Your task to perform on an android device: What's on the menu at Red Lobster? Image 0: 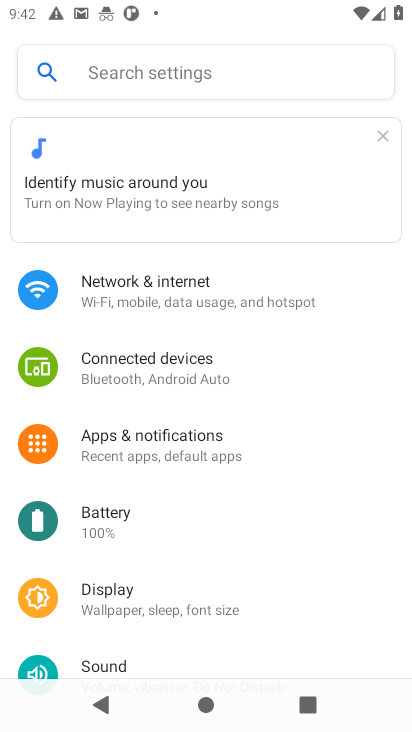
Step 0: press home button
Your task to perform on an android device: What's on the menu at Red Lobster? Image 1: 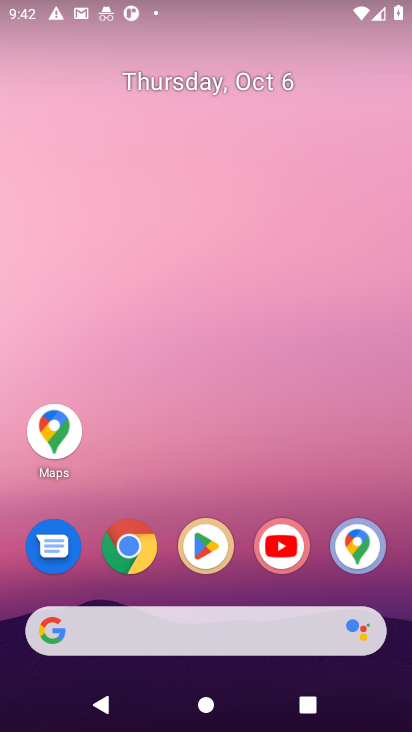
Step 1: click (133, 545)
Your task to perform on an android device: What's on the menu at Red Lobster? Image 2: 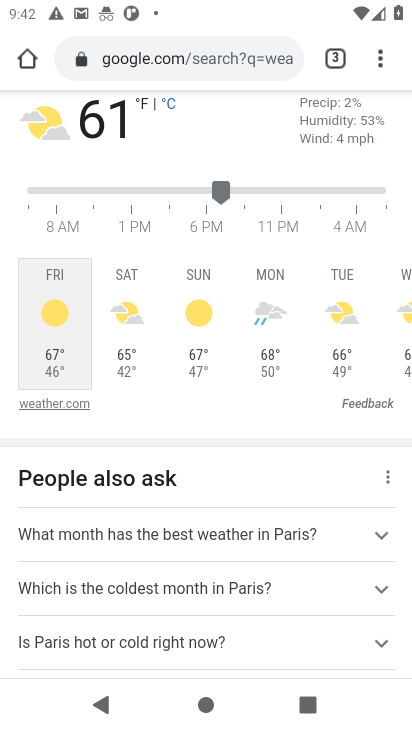
Step 2: click (195, 43)
Your task to perform on an android device: What's on the menu at Red Lobster? Image 3: 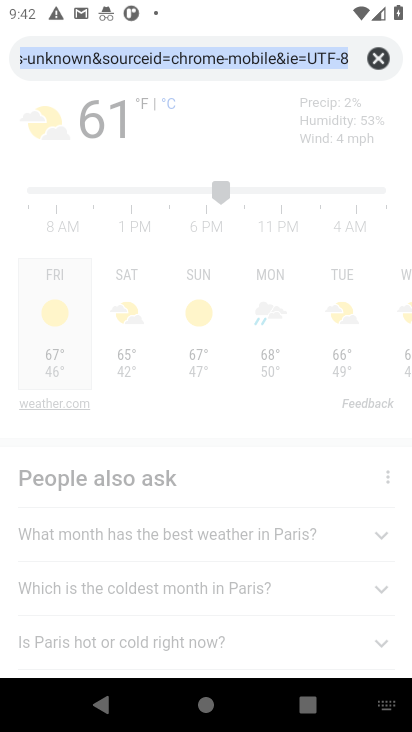
Step 3: click (378, 54)
Your task to perform on an android device: What's on the menu at Red Lobster? Image 4: 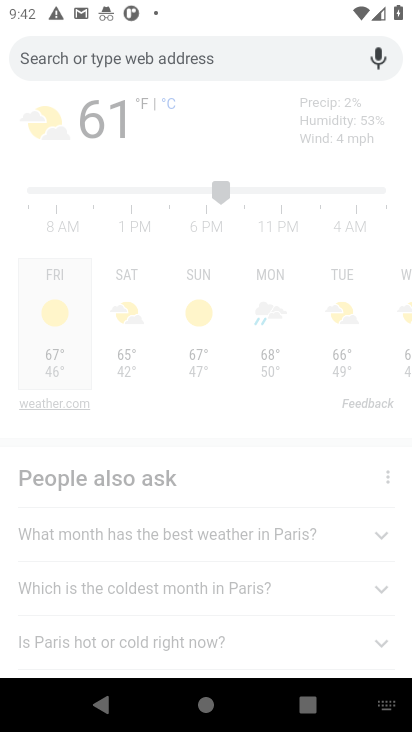
Step 4: type "What's on the menu at Red Lobster?"
Your task to perform on an android device: What's on the menu at Red Lobster? Image 5: 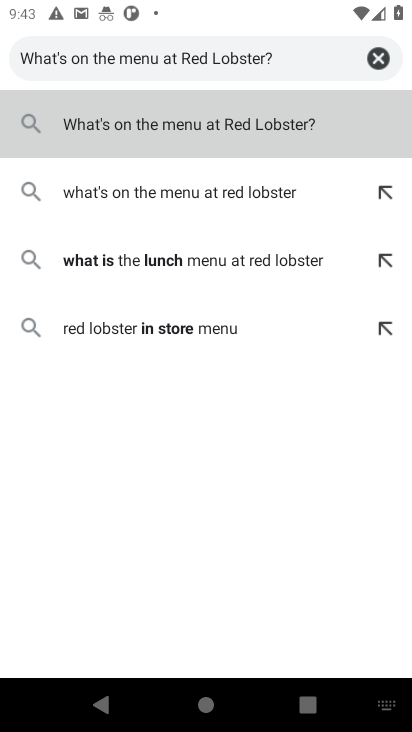
Step 5: click (131, 121)
Your task to perform on an android device: What's on the menu at Red Lobster? Image 6: 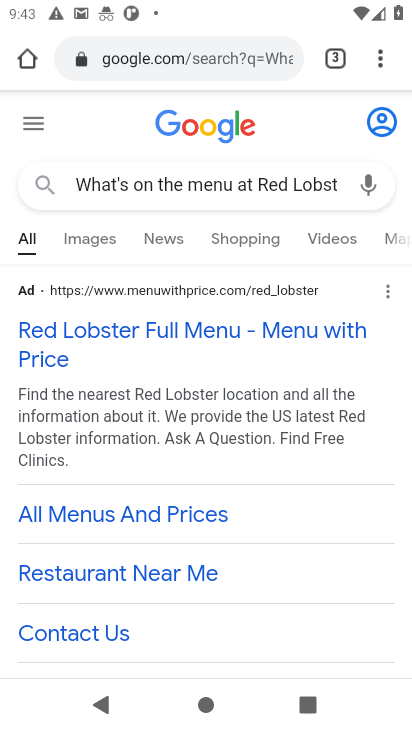
Step 6: click (97, 336)
Your task to perform on an android device: What's on the menu at Red Lobster? Image 7: 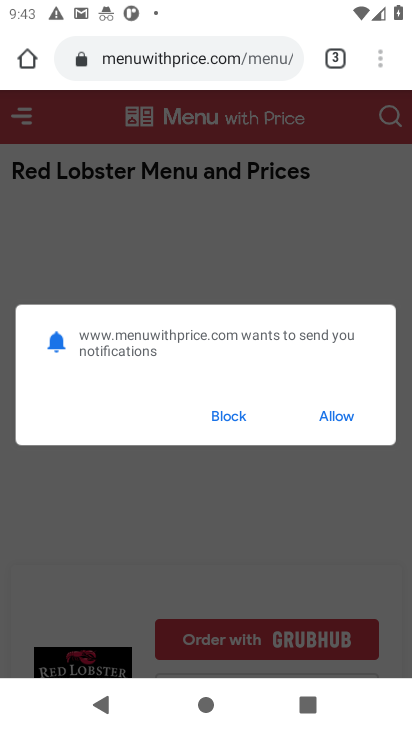
Step 7: click (233, 416)
Your task to perform on an android device: What's on the menu at Red Lobster? Image 8: 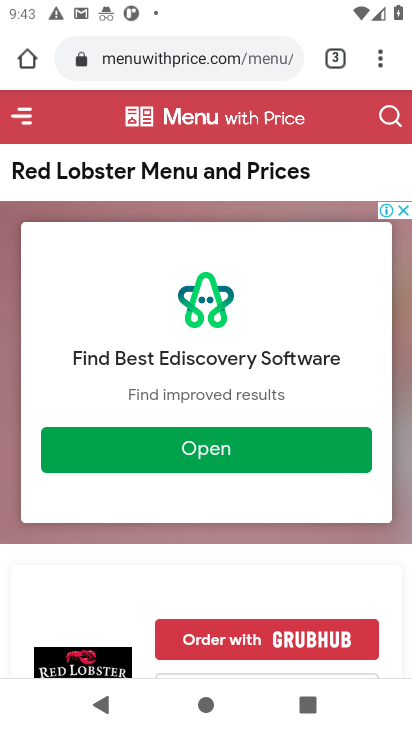
Step 8: drag from (254, 551) to (228, 138)
Your task to perform on an android device: What's on the menu at Red Lobster? Image 9: 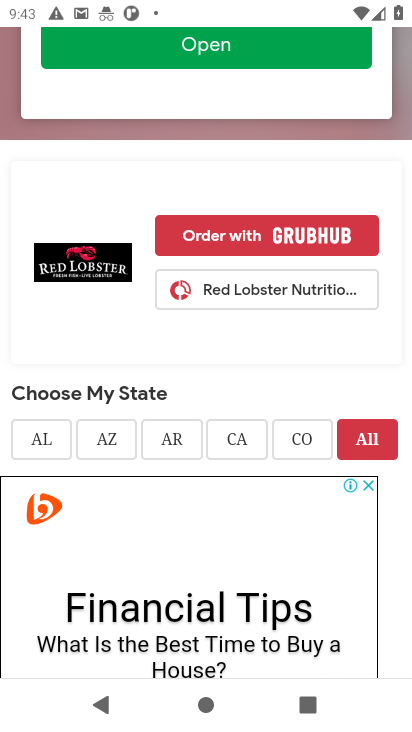
Step 9: drag from (233, 466) to (230, 92)
Your task to perform on an android device: What's on the menu at Red Lobster? Image 10: 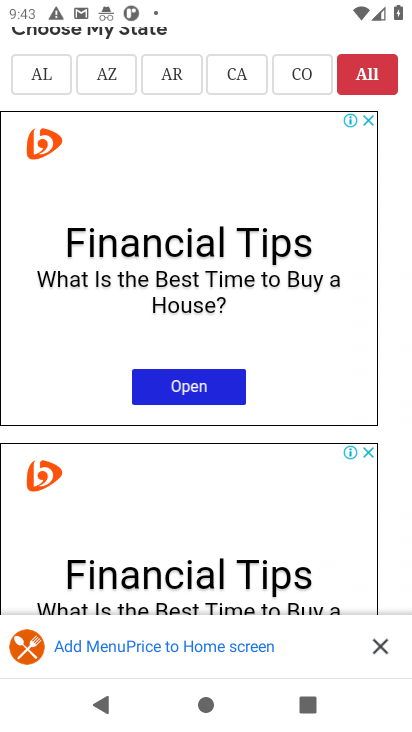
Step 10: drag from (224, 436) to (271, 60)
Your task to perform on an android device: What's on the menu at Red Lobster? Image 11: 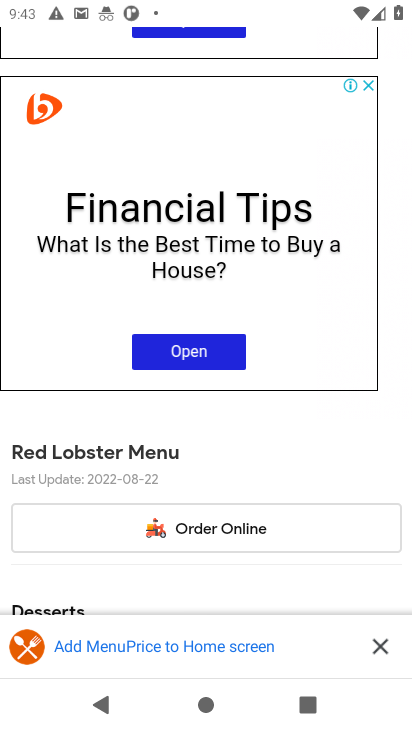
Step 11: drag from (191, 473) to (286, 59)
Your task to perform on an android device: What's on the menu at Red Lobster? Image 12: 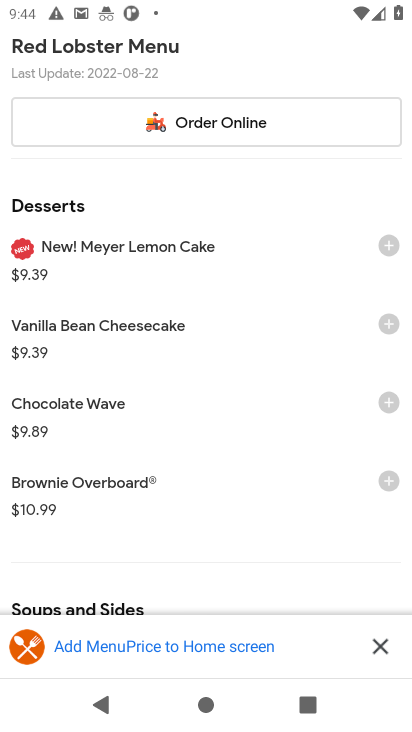
Step 12: press back button
Your task to perform on an android device: What's on the menu at Red Lobster? Image 13: 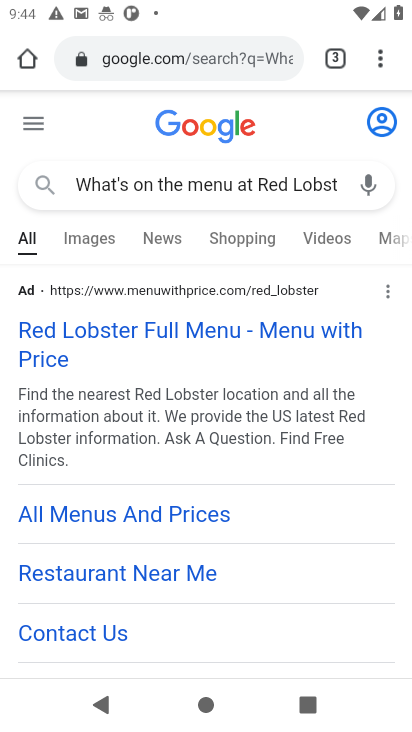
Step 13: drag from (195, 500) to (214, 202)
Your task to perform on an android device: What's on the menu at Red Lobster? Image 14: 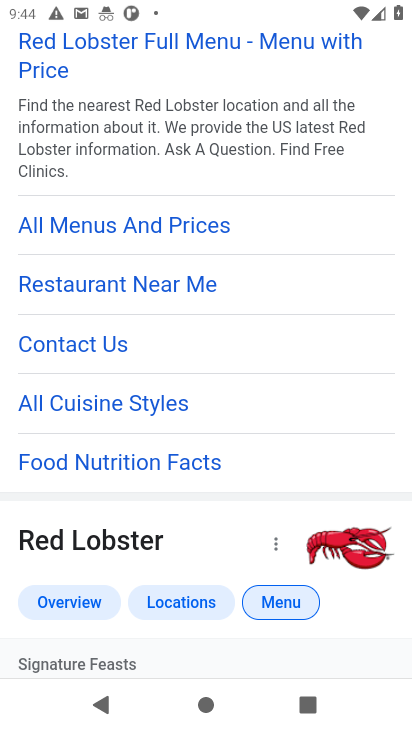
Step 14: drag from (202, 507) to (223, 174)
Your task to perform on an android device: What's on the menu at Red Lobster? Image 15: 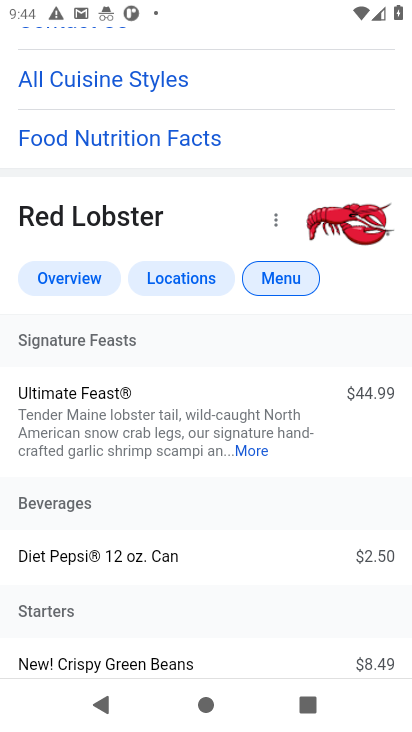
Step 15: drag from (214, 214) to (187, 467)
Your task to perform on an android device: What's on the menu at Red Lobster? Image 16: 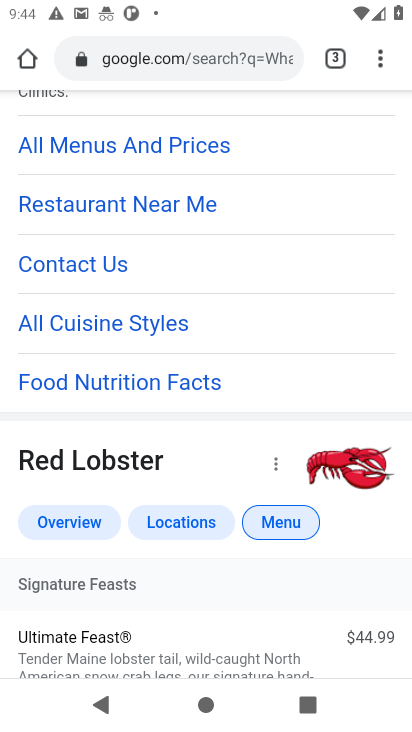
Step 16: drag from (191, 244) to (189, 391)
Your task to perform on an android device: What's on the menu at Red Lobster? Image 17: 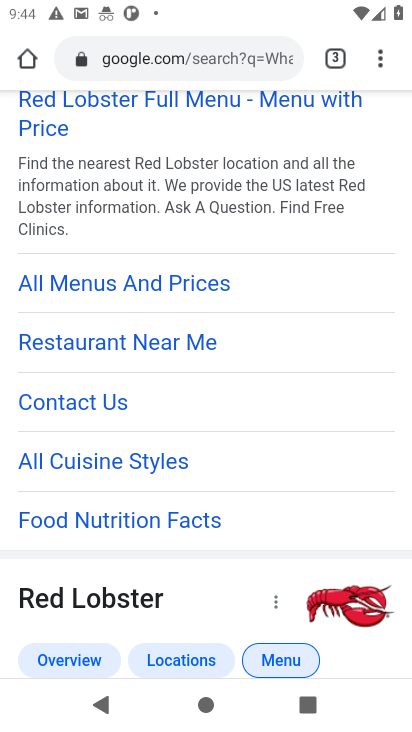
Step 17: click (63, 289)
Your task to perform on an android device: What's on the menu at Red Lobster? Image 18: 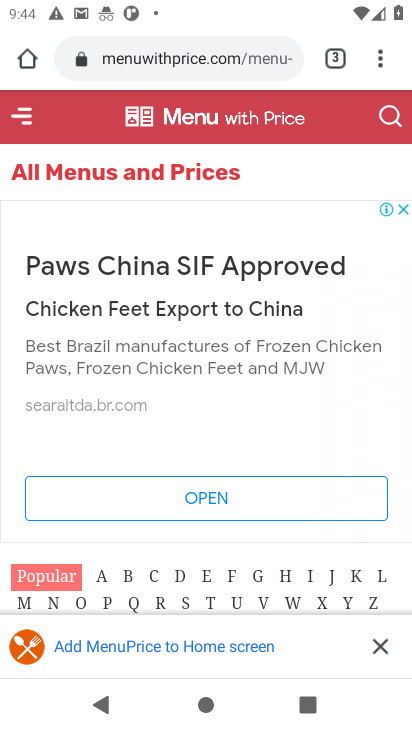
Step 18: task complete